Your task to perform on an android device: Open Android settings Image 0: 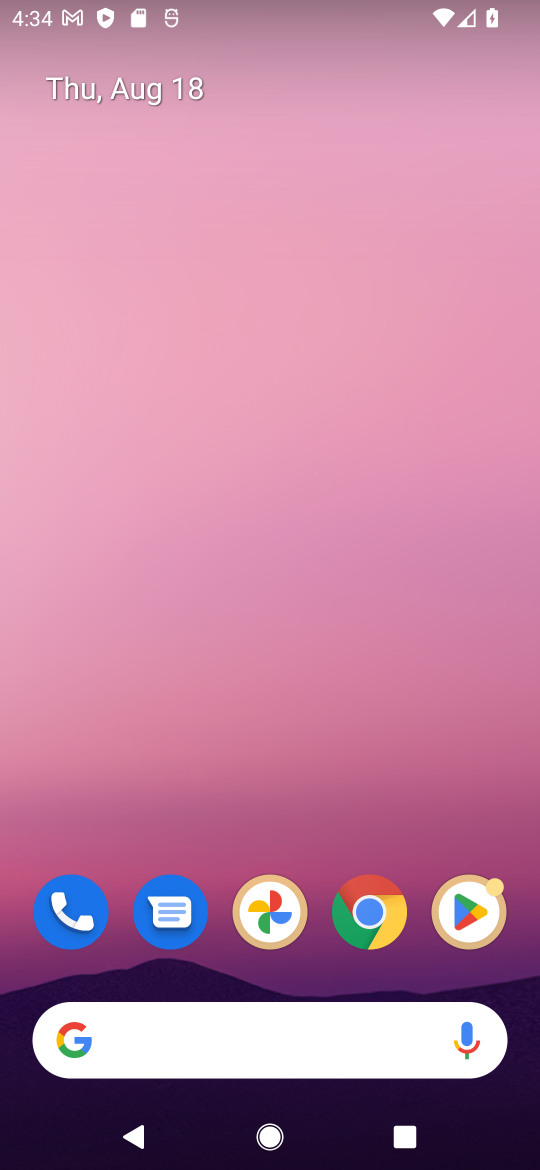
Step 0: drag from (330, 794) to (339, 294)
Your task to perform on an android device: Open Android settings Image 1: 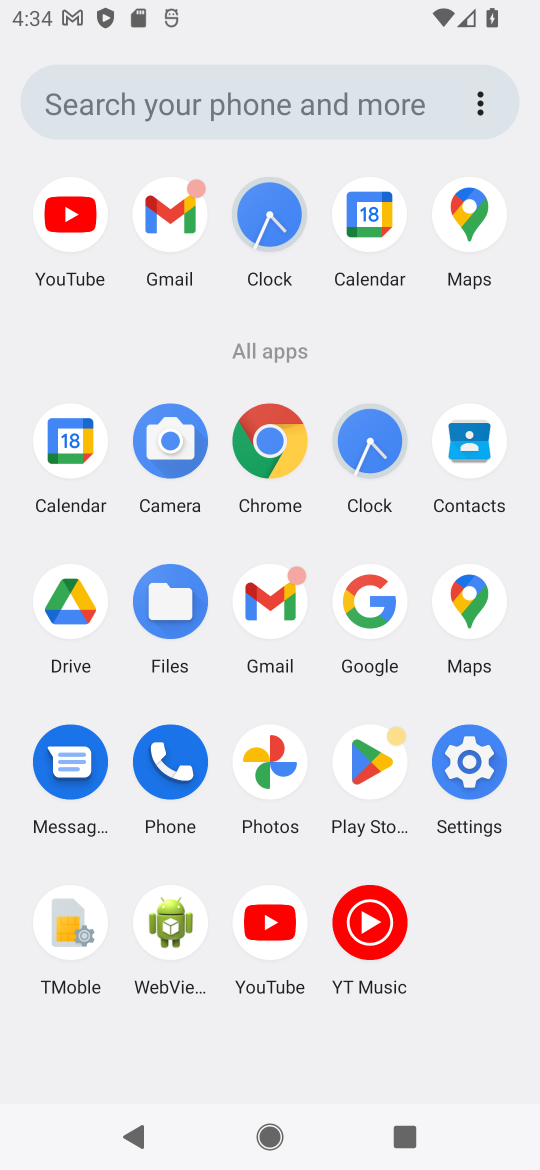
Step 1: click (469, 756)
Your task to perform on an android device: Open Android settings Image 2: 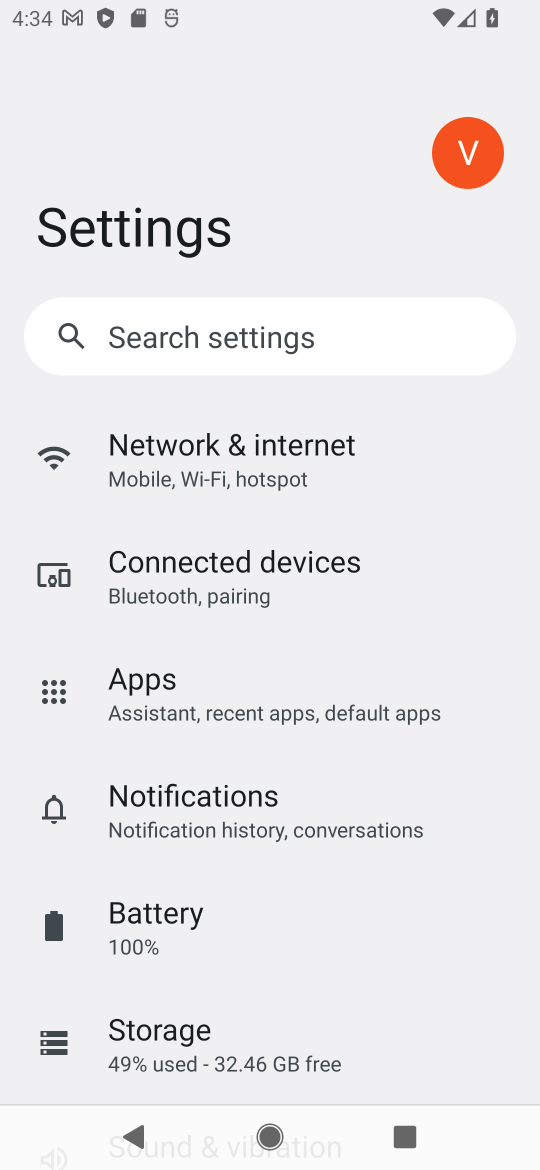
Step 2: task complete